Your task to perform on an android device: set default search engine in the chrome app Image 0: 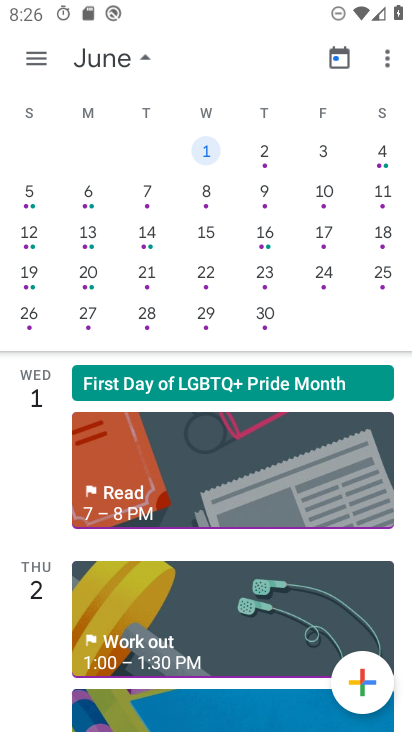
Step 0: press back button
Your task to perform on an android device: set default search engine in the chrome app Image 1: 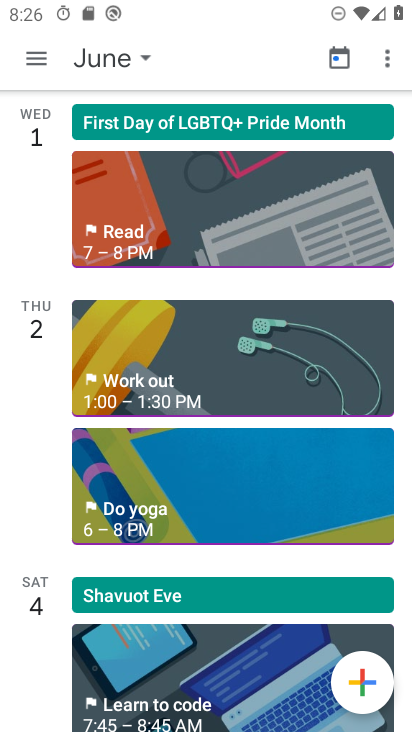
Step 1: press back button
Your task to perform on an android device: set default search engine in the chrome app Image 2: 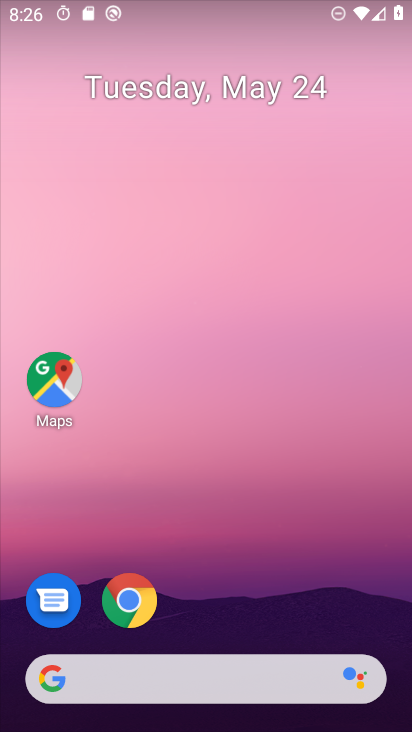
Step 2: click (128, 584)
Your task to perform on an android device: set default search engine in the chrome app Image 3: 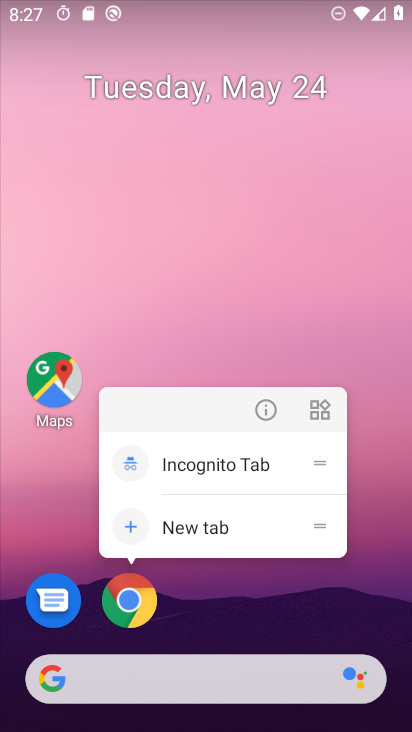
Step 3: click (140, 590)
Your task to perform on an android device: set default search engine in the chrome app Image 4: 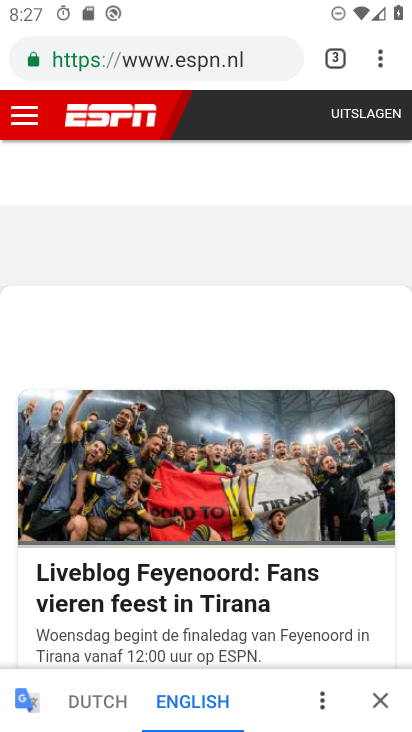
Step 4: drag from (381, 56) to (197, 613)
Your task to perform on an android device: set default search engine in the chrome app Image 5: 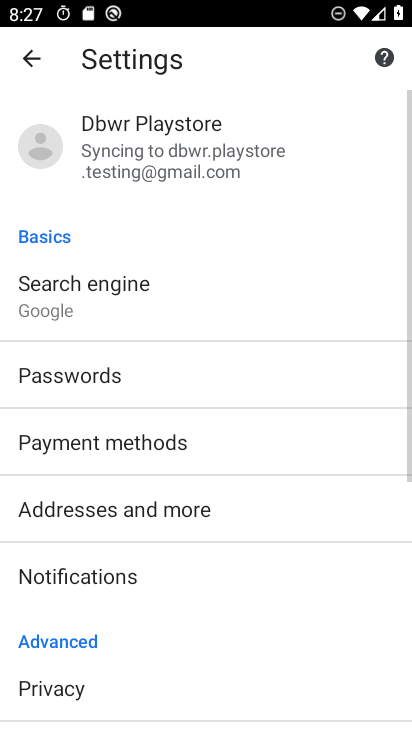
Step 5: click (64, 290)
Your task to perform on an android device: set default search engine in the chrome app Image 6: 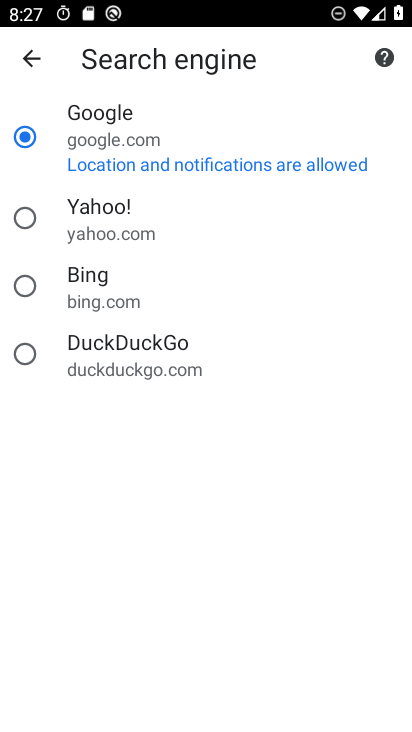
Step 6: click (19, 217)
Your task to perform on an android device: set default search engine in the chrome app Image 7: 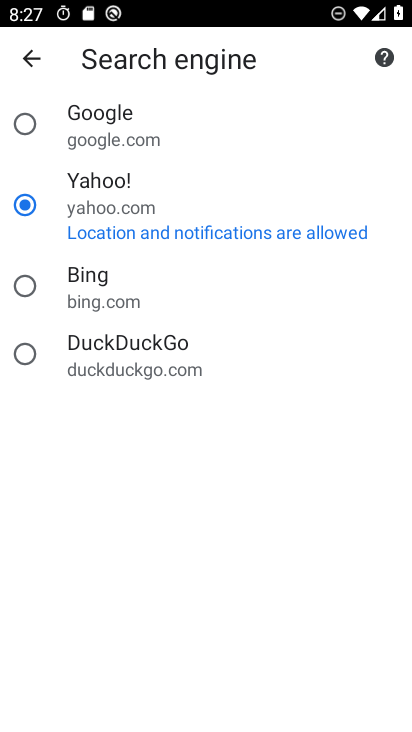
Step 7: task complete